Your task to perform on an android device: Open notification settings Image 0: 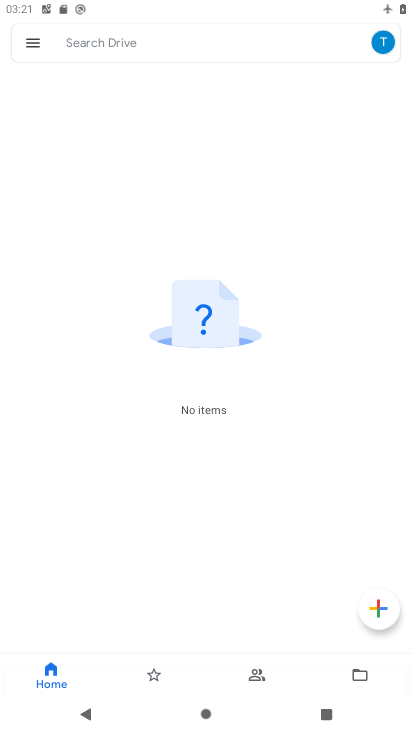
Step 0: press home button
Your task to perform on an android device: Open notification settings Image 1: 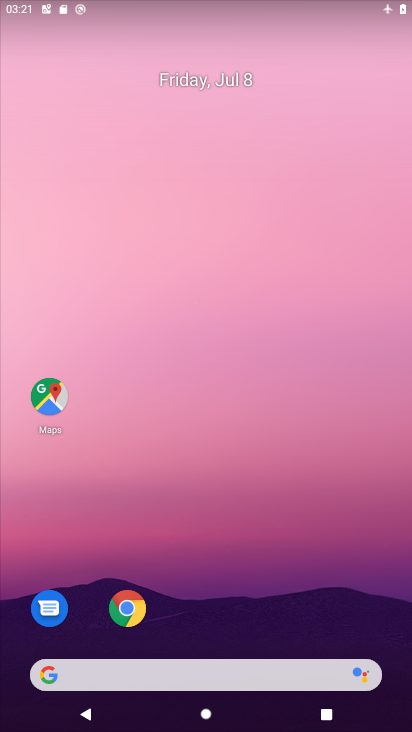
Step 1: drag from (201, 624) to (208, 266)
Your task to perform on an android device: Open notification settings Image 2: 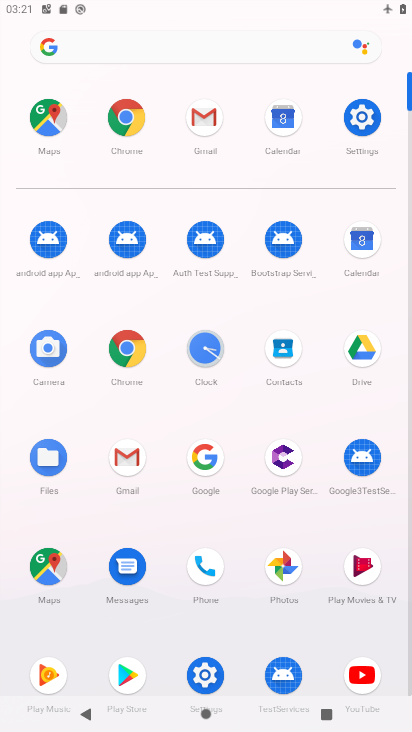
Step 2: click (359, 122)
Your task to perform on an android device: Open notification settings Image 3: 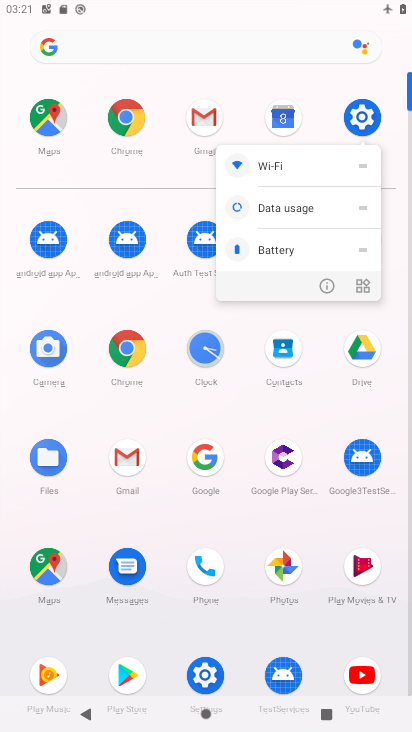
Step 3: click (379, 119)
Your task to perform on an android device: Open notification settings Image 4: 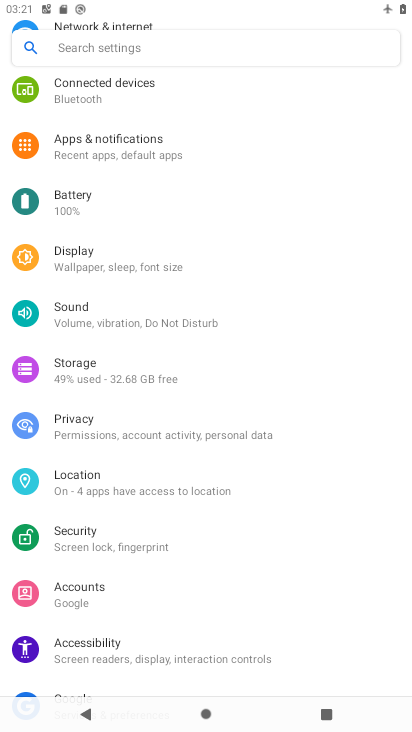
Step 4: click (160, 140)
Your task to perform on an android device: Open notification settings Image 5: 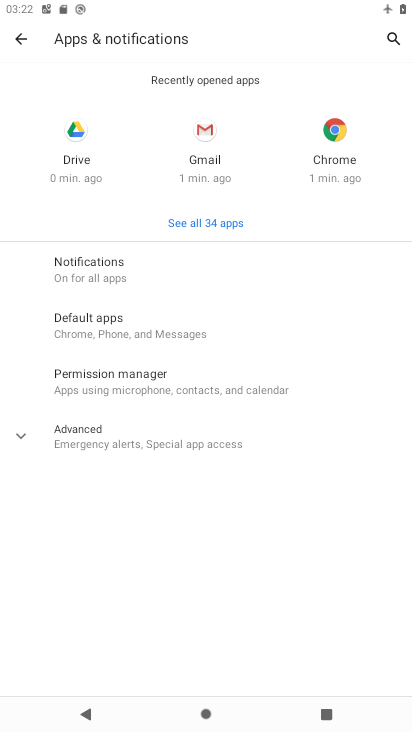
Step 5: click (153, 284)
Your task to perform on an android device: Open notification settings Image 6: 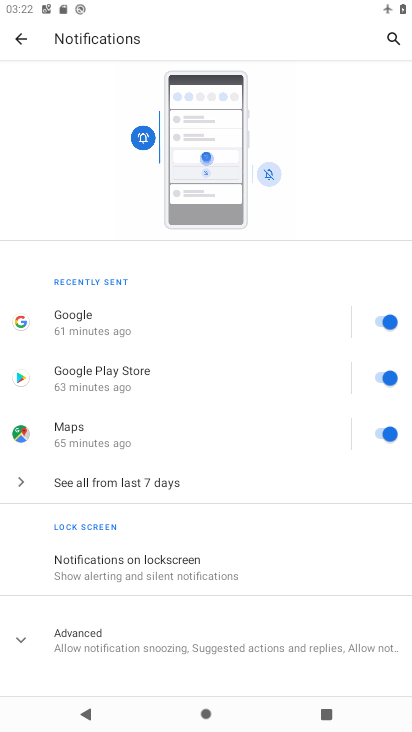
Step 6: task complete